Your task to perform on an android device: change alarm snooze length Image 0: 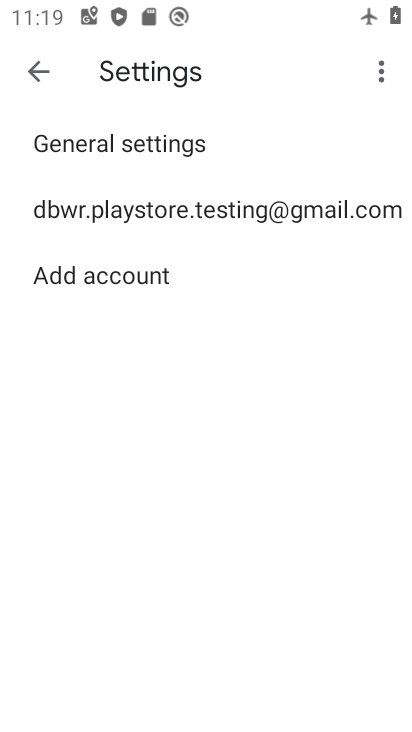
Step 0: press home button
Your task to perform on an android device: change alarm snooze length Image 1: 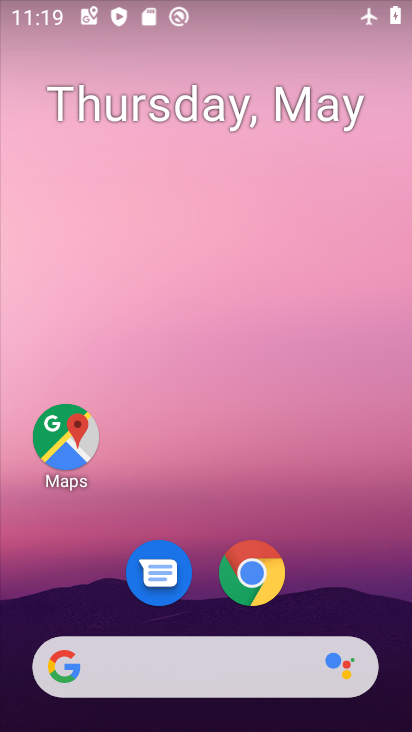
Step 1: drag from (304, 532) to (238, 224)
Your task to perform on an android device: change alarm snooze length Image 2: 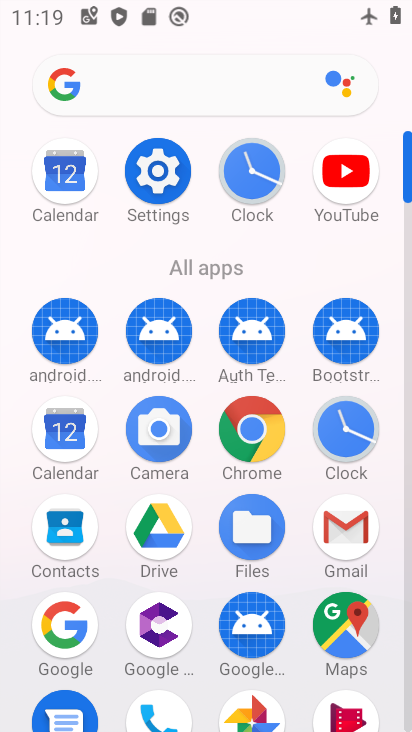
Step 2: click (347, 445)
Your task to perform on an android device: change alarm snooze length Image 3: 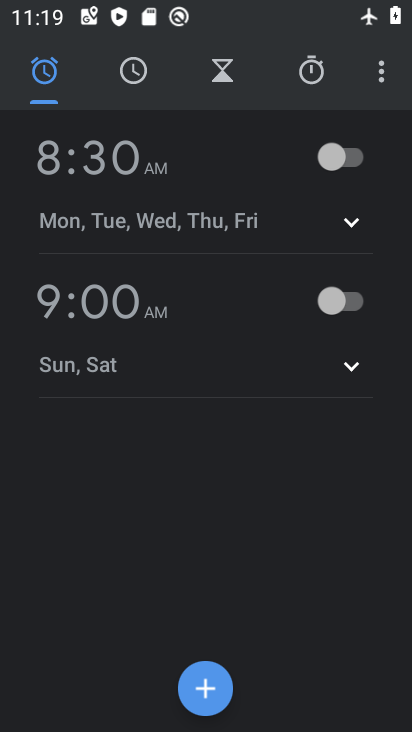
Step 3: click (379, 73)
Your task to perform on an android device: change alarm snooze length Image 4: 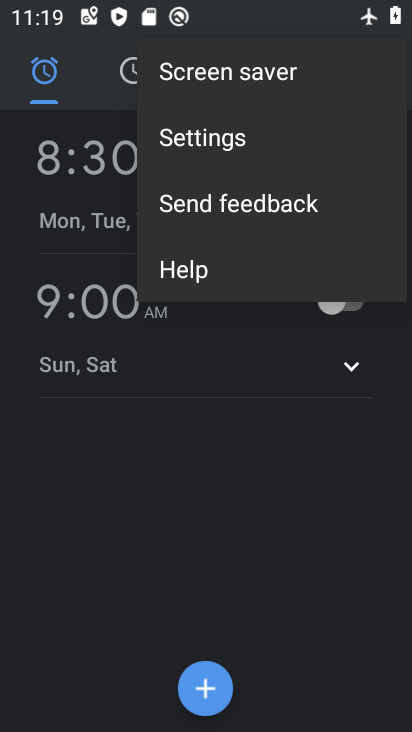
Step 4: click (217, 136)
Your task to perform on an android device: change alarm snooze length Image 5: 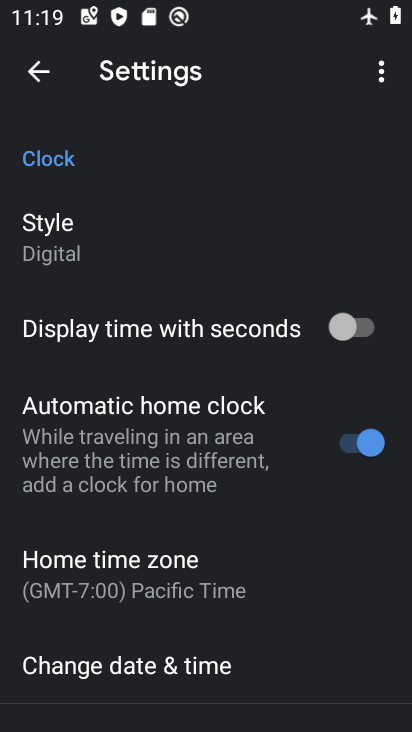
Step 5: drag from (242, 535) to (204, 346)
Your task to perform on an android device: change alarm snooze length Image 6: 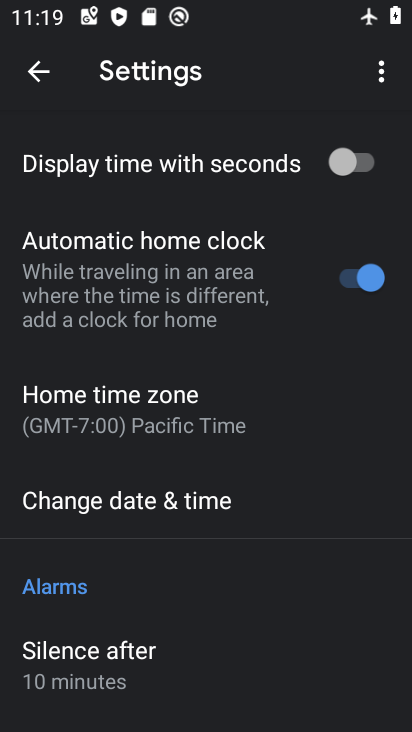
Step 6: drag from (230, 639) to (178, 362)
Your task to perform on an android device: change alarm snooze length Image 7: 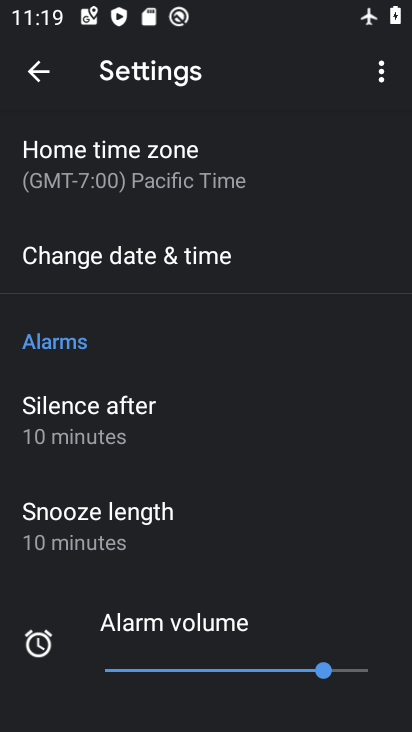
Step 7: click (187, 503)
Your task to perform on an android device: change alarm snooze length Image 8: 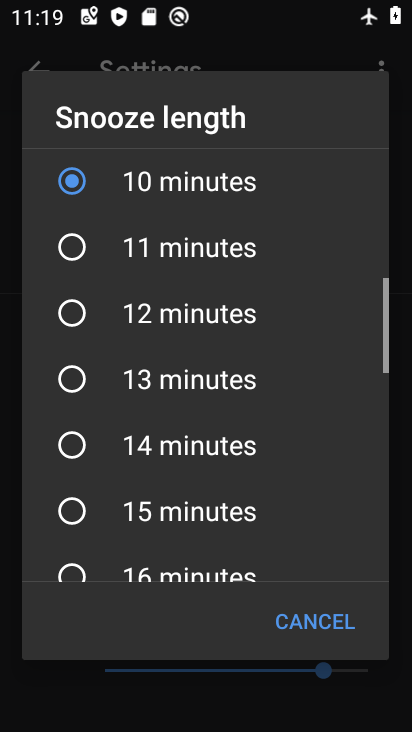
Step 8: click (185, 523)
Your task to perform on an android device: change alarm snooze length Image 9: 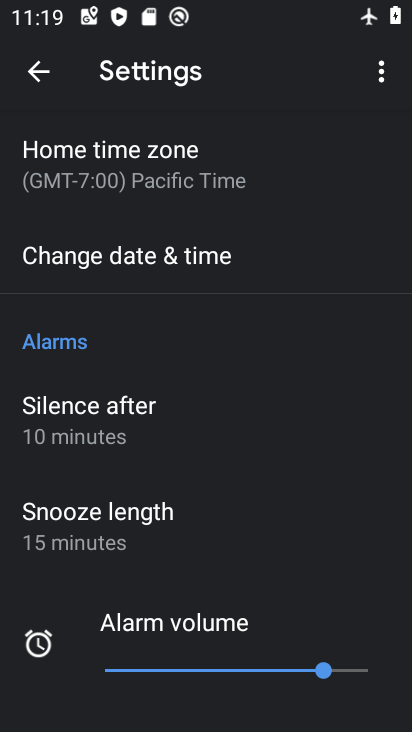
Step 9: task complete